Your task to perform on an android device: Go to calendar. Show me events next week Image 0: 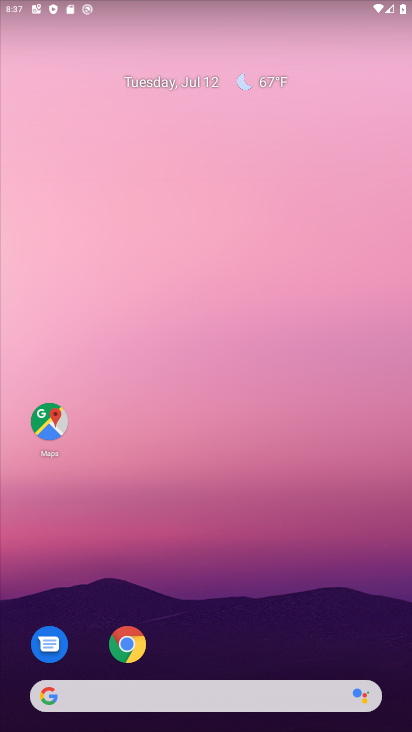
Step 0: drag from (162, 501) to (231, 139)
Your task to perform on an android device: Go to calendar. Show me events next week Image 1: 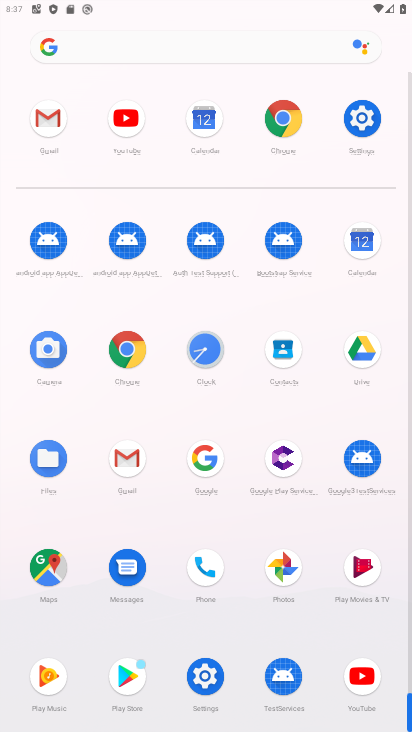
Step 1: click (356, 234)
Your task to perform on an android device: Go to calendar. Show me events next week Image 2: 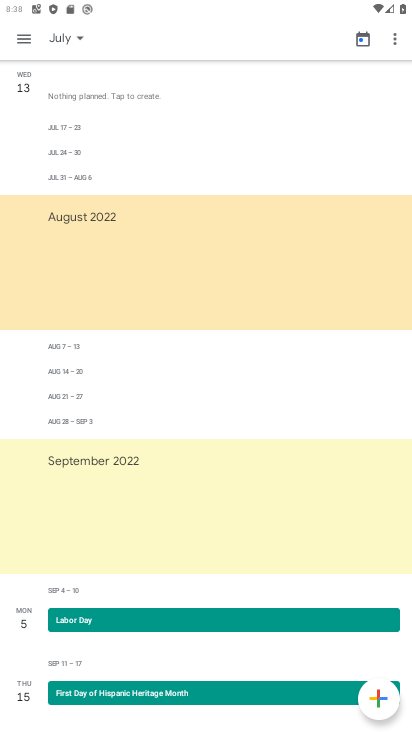
Step 2: drag from (205, 585) to (315, 247)
Your task to perform on an android device: Go to calendar. Show me events next week Image 3: 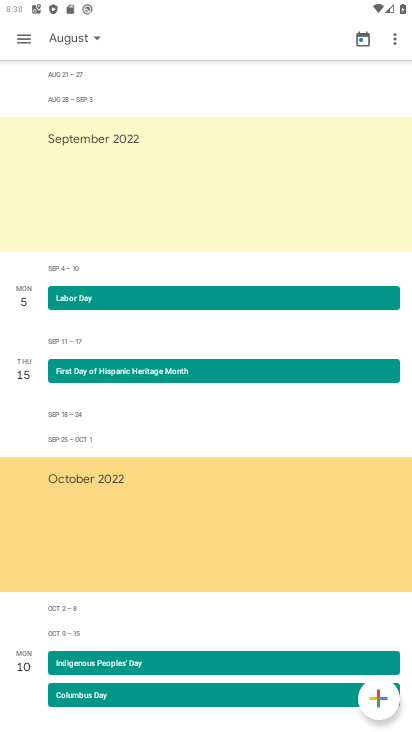
Step 3: drag from (197, 643) to (355, 188)
Your task to perform on an android device: Go to calendar. Show me events next week Image 4: 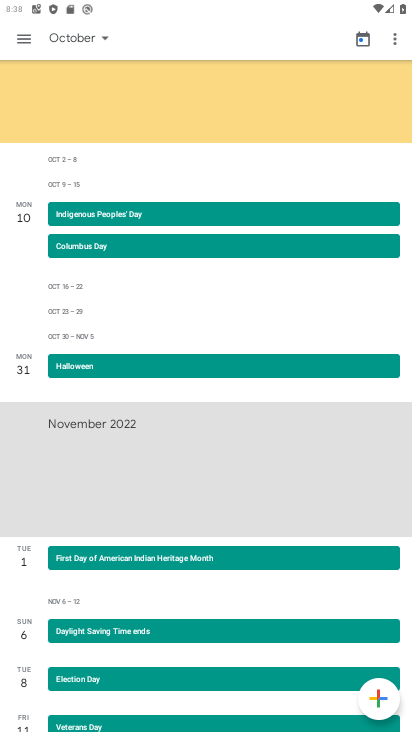
Step 4: drag from (269, 201) to (263, 710)
Your task to perform on an android device: Go to calendar. Show me events next week Image 5: 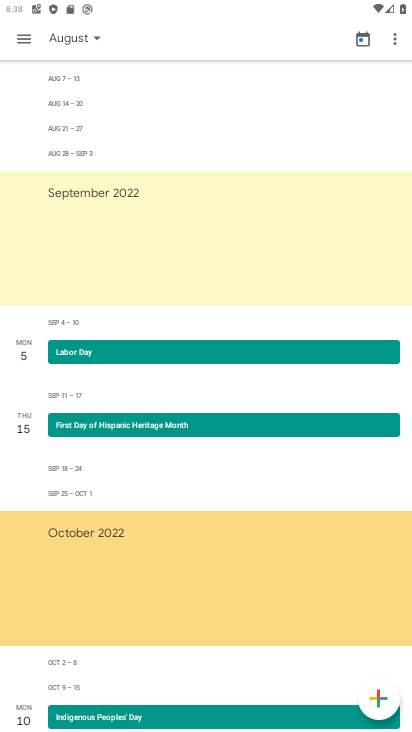
Step 5: click (70, 41)
Your task to perform on an android device: Go to calendar. Show me events next week Image 6: 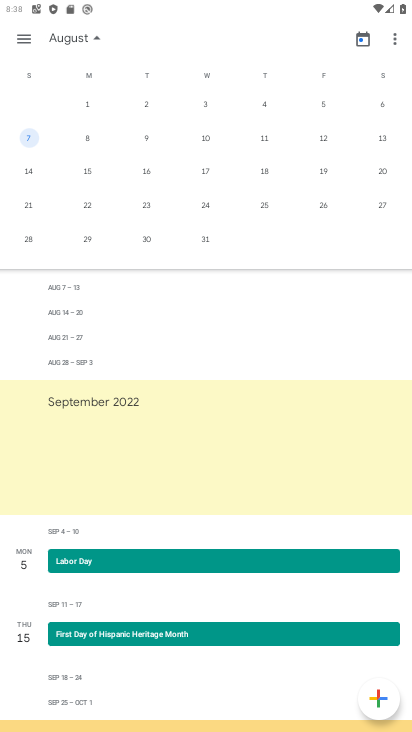
Step 6: drag from (78, 143) to (407, 138)
Your task to perform on an android device: Go to calendar. Show me events next week Image 7: 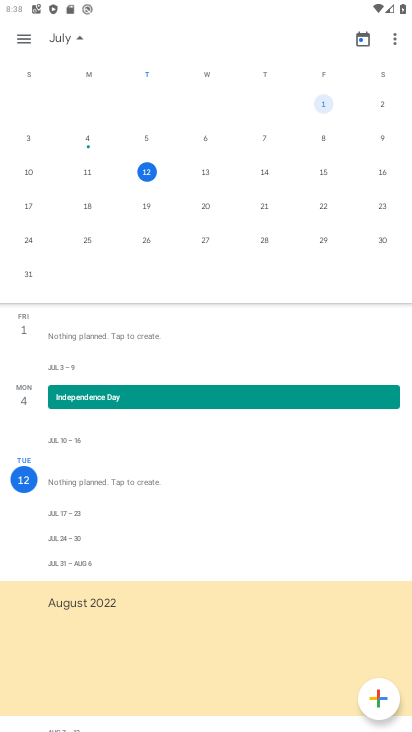
Step 7: click (261, 200)
Your task to perform on an android device: Go to calendar. Show me events next week Image 8: 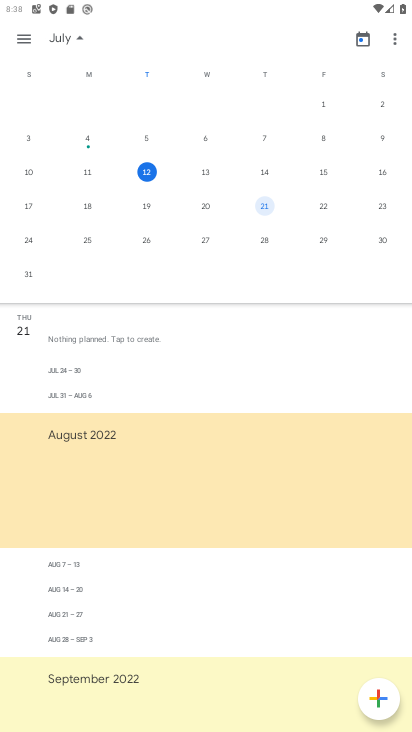
Step 8: task complete